Your task to perform on an android device: What's the weather going to be this weekend? Image 0: 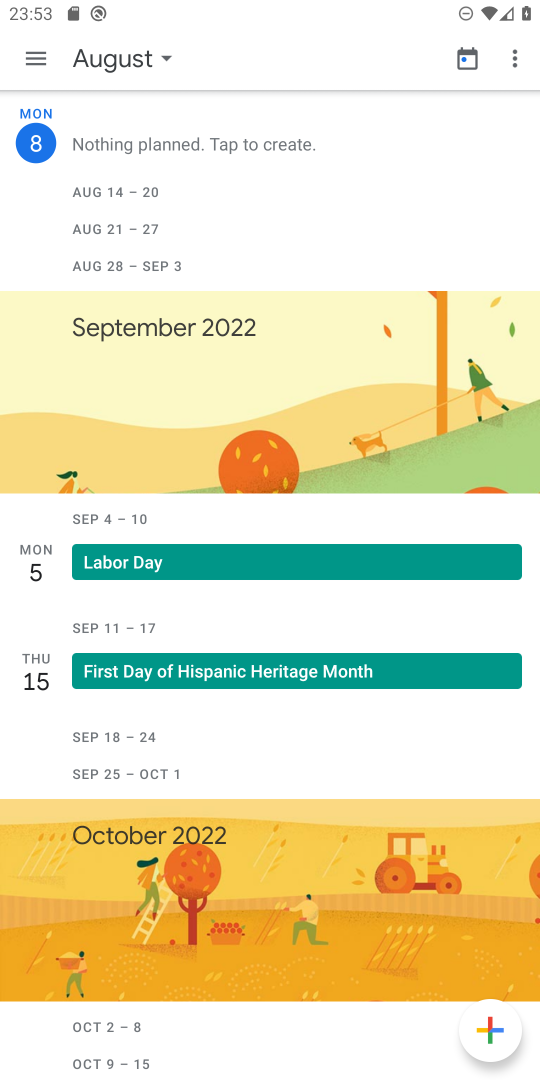
Step 0: press home button
Your task to perform on an android device: What's the weather going to be this weekend? Image 1: 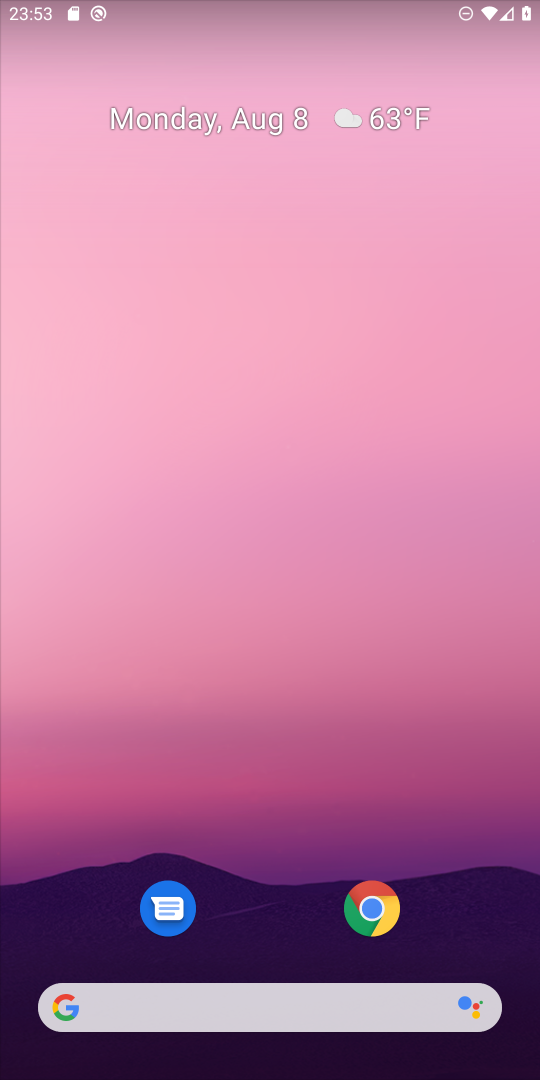
Step 1: click (391, 895)
Your task to perform on an android device: What's the weather going to be this weekend? Image 2: 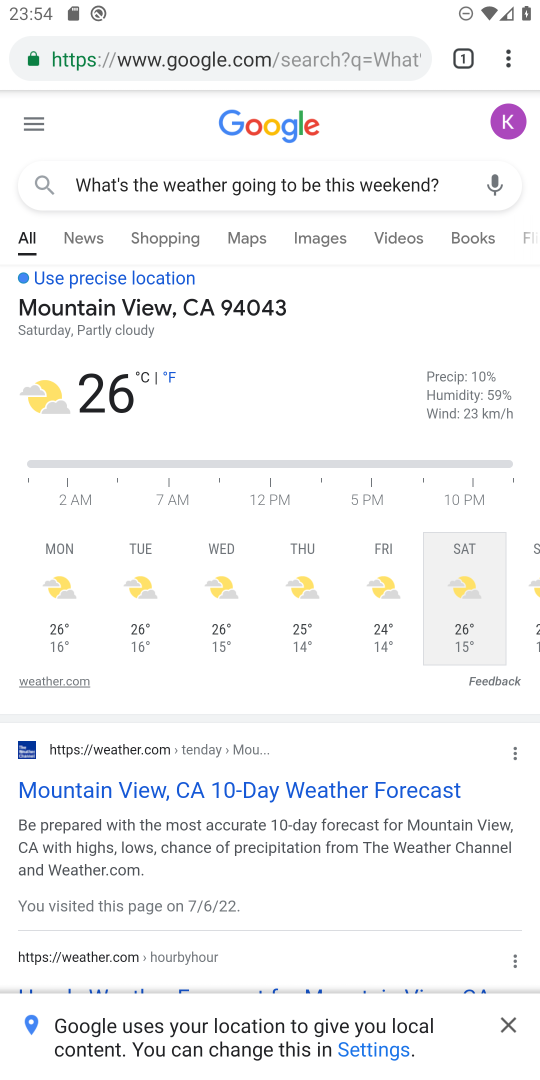
Step 2: task complete